Your task to perform on an android device: What's the weather today? Image 0: 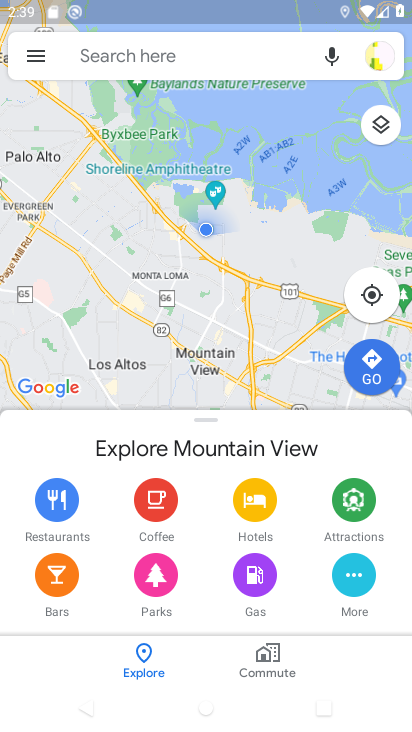
Step 0: press home button
Your task to perform on an android device: What's the weather today? Image 1: 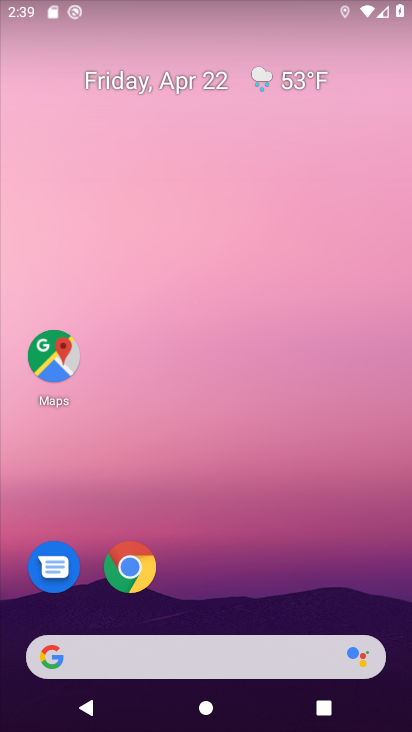
Step 1: click (232, 659)
Your task to perform on an android device: What's the weather today? Image 2: 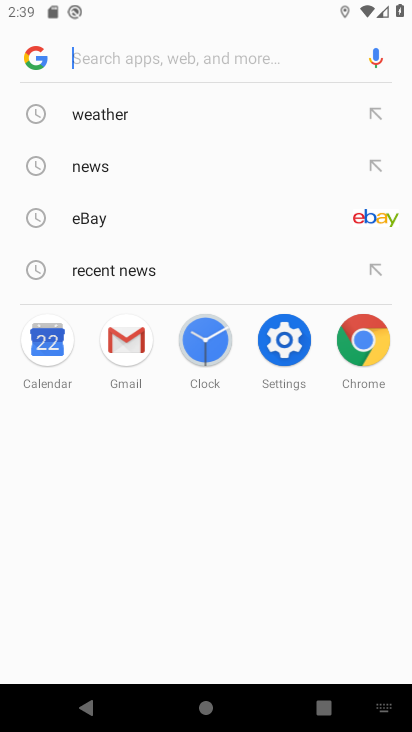
Step 2: click (98, 103)
Your task to perform on an android device: What's the weather today? Image 3: 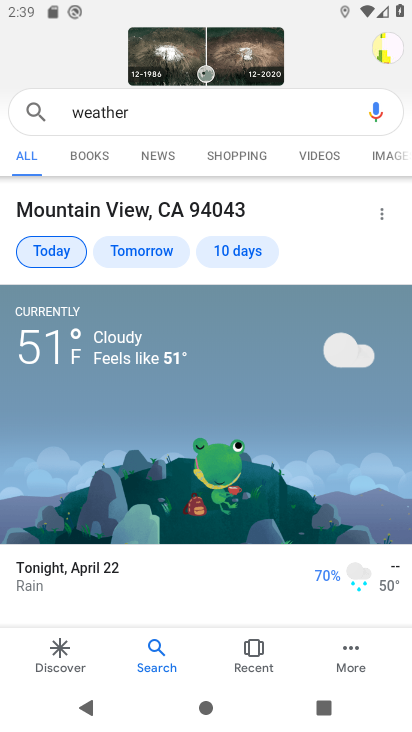
Step 3: task complete